Your task to perform on an android device: Add "razer deathadder" to the cart on newegg.com Image 0: 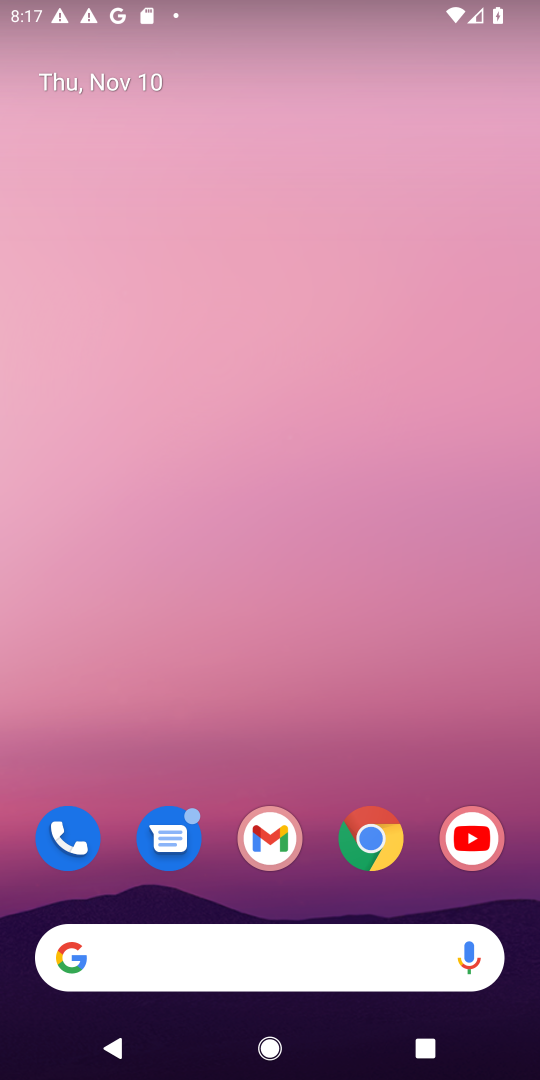
Step 0: press home button
Your task to perform on an android device: Add "razer deathadder" to the cart on newegg.com Image 1: 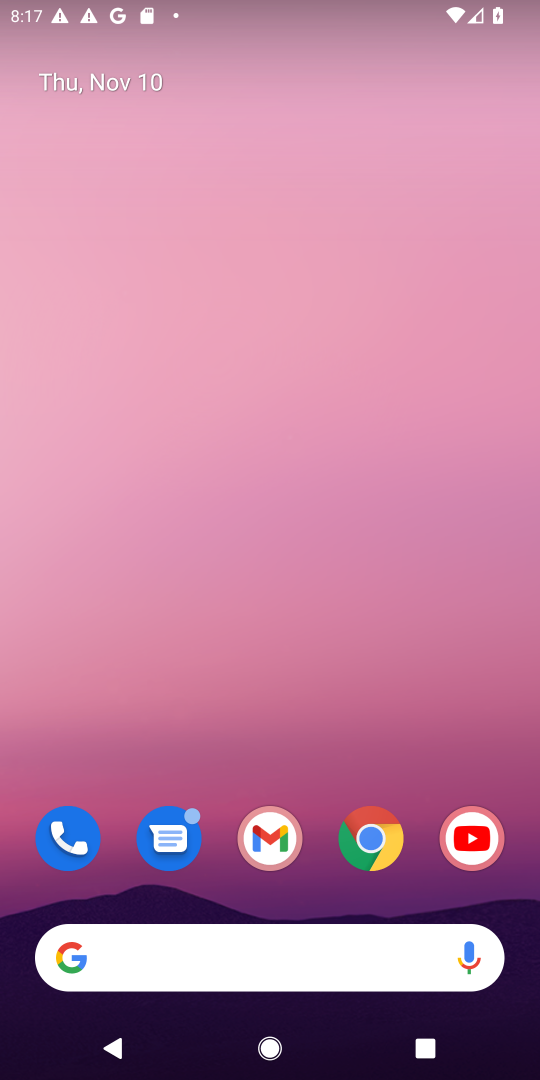
Step 1: drag from (311, 902) to (229, 27)
Your task to perform on an android device: Add "razer deathadder" to the cart on newegg.com Image 2: 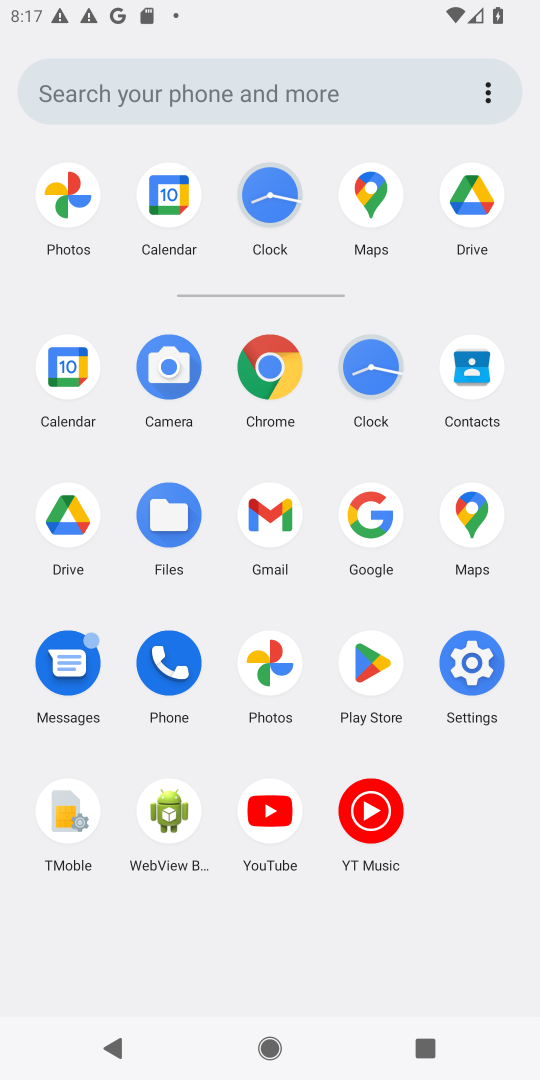
Step 2: click (269, 370)
Your task to perform on an android device: Add "razer deathadder" to the cart on newegg.com Image 3: 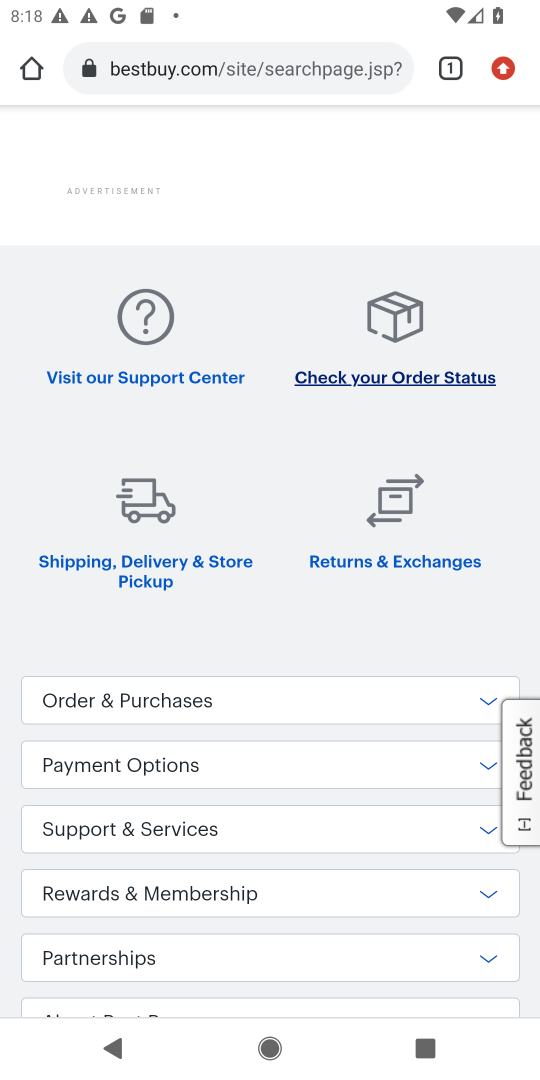
Step 3: click (281, 61)
Your task to perform on an android device: Add "razer deathadder" to the cart on newegg.com Image 4: 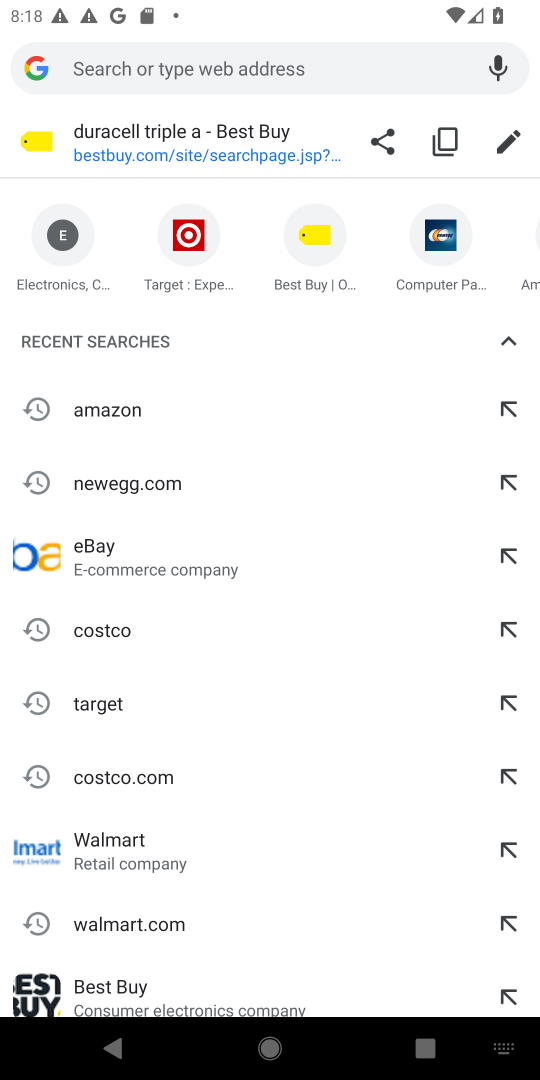
Step 4: type "newegg.com"
Your task to perform on an android device: Add "razer deathadder" to the cart on newegg.com Image 5: 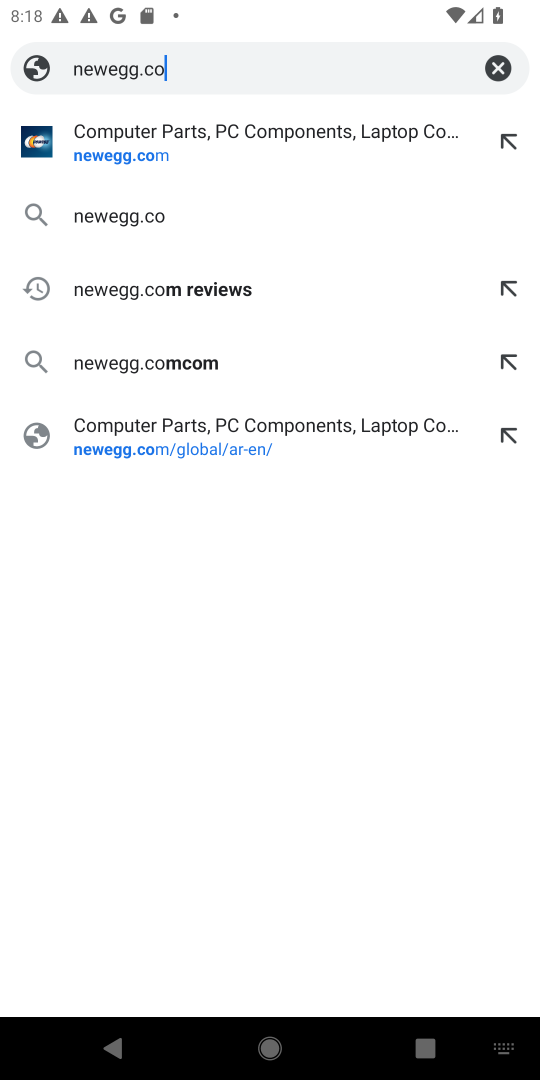
Step 5: press enter
Your task to perform on an android device: Add "razer deathadder" to the cart on newegg.com Image 6: 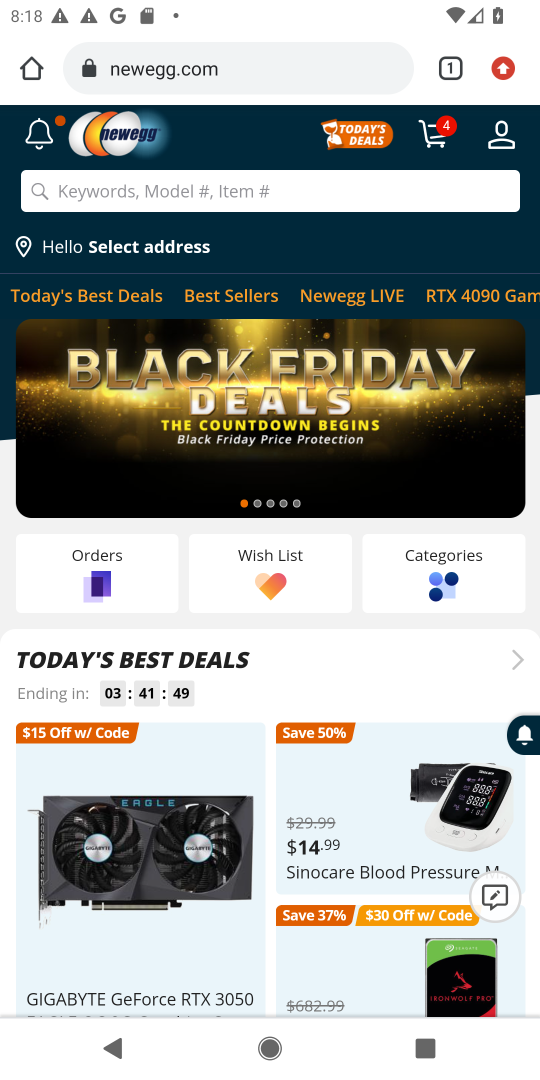
Step 6: click (283, 182)
Your task to perform on an android device: Add "razer deathadder" to the cart on newegg.com Image 7: 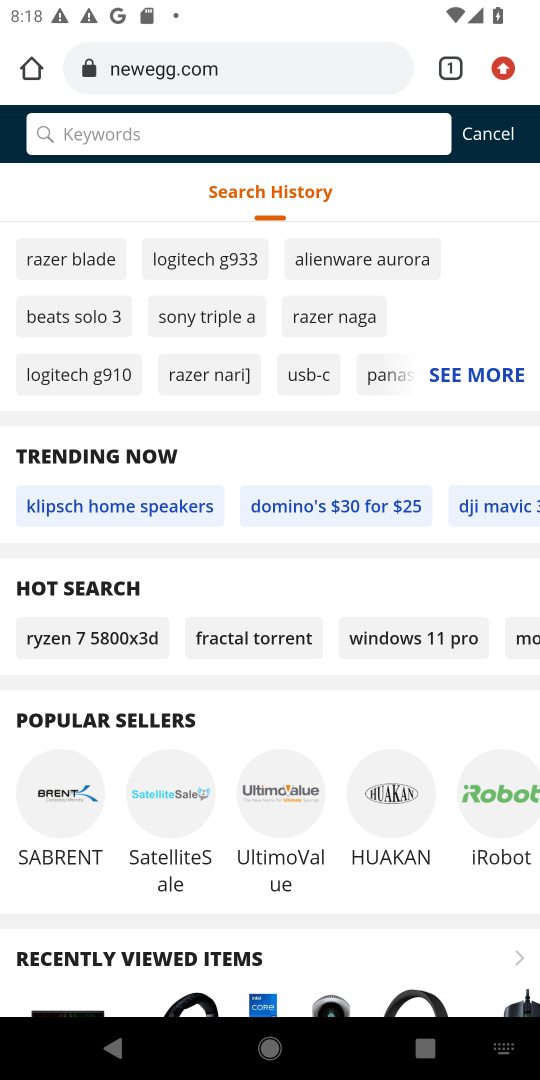
Step 7: type "razer deathadder"
Your task to perform on an android device: Add "razer deathadder" to the cart on newegg.com Image 8: 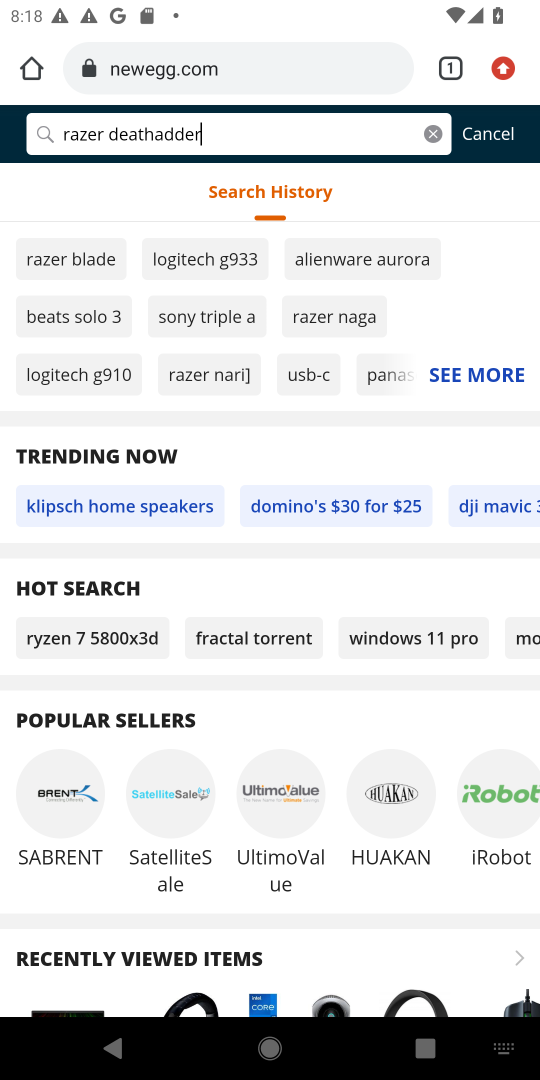
Step 8: press enter
Your task to perform on an android device: Add "razer deathadder" to the cart on newegg.com Image 9: 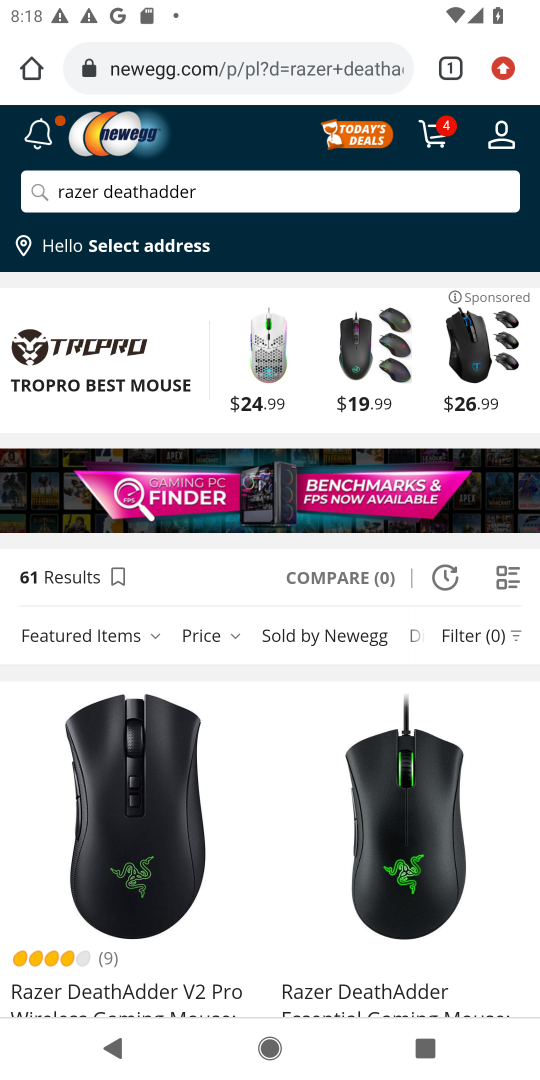
Step 9: drag from (230, 900) to (252, 301)
Your task to perform on an android device: Add "razer deathadder" to the cart on newegg.com Image 10: 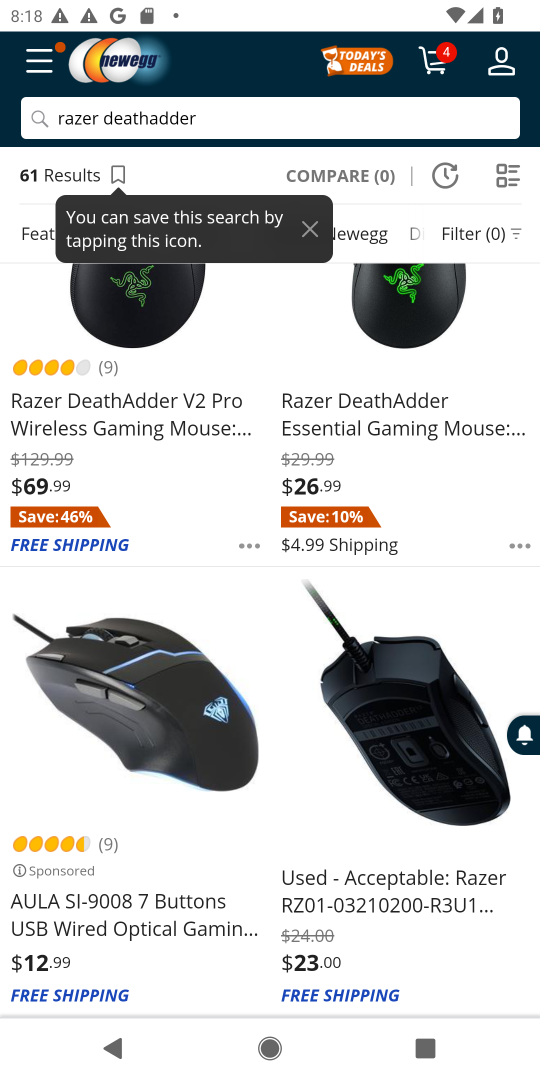
Step 10: click (152, 304)
Your task to perform on an android device: Add "razer deathadder" to the cart on newegg.com Image 11: 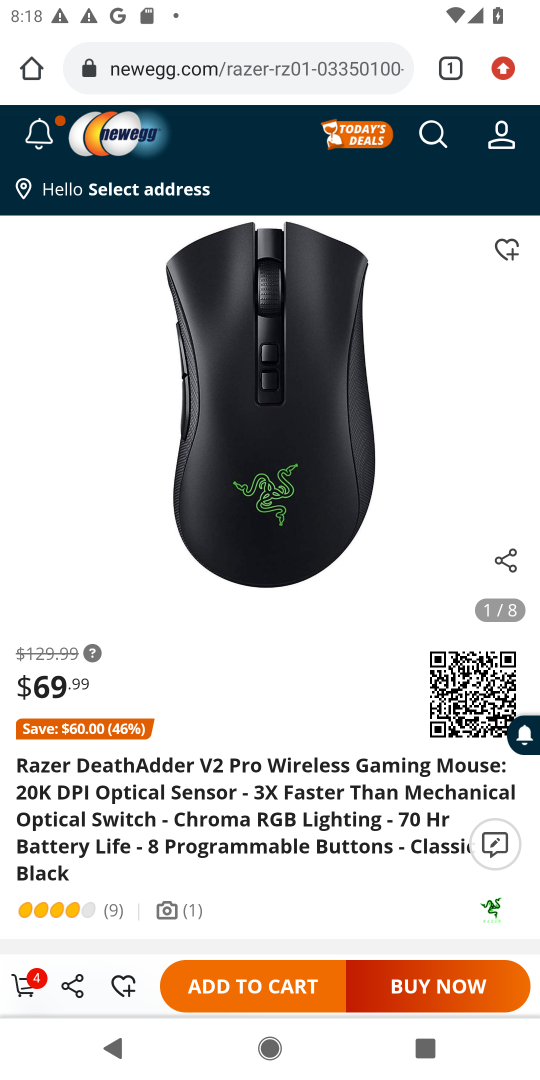
Step 11: click (258, 981)
Your task to perform on an android device: Add "razer deathadder" to the cart on newegg.com Image 12: 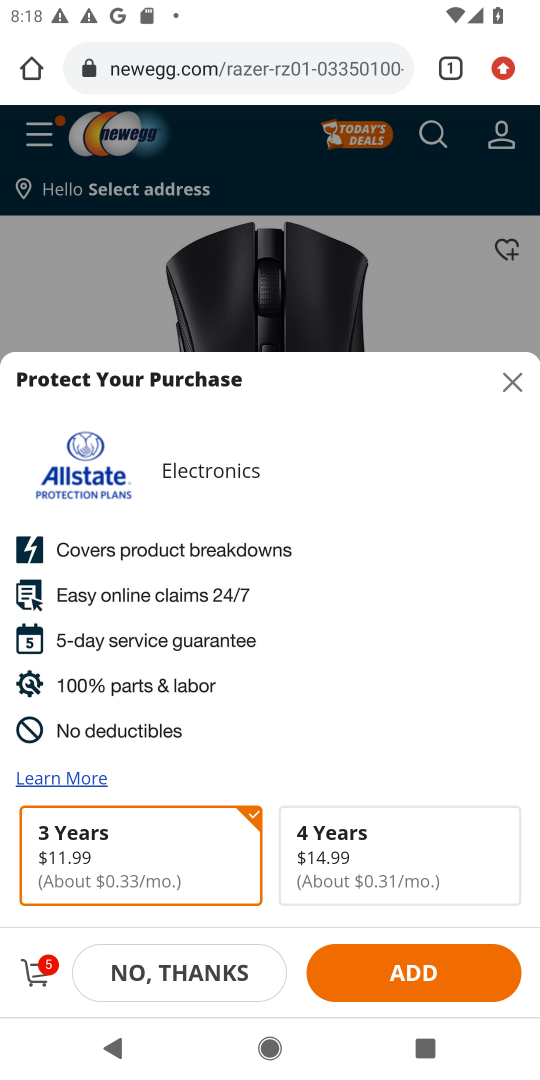
Step 12: task complete